Your task to perform on an android device: set the timer Image 0: 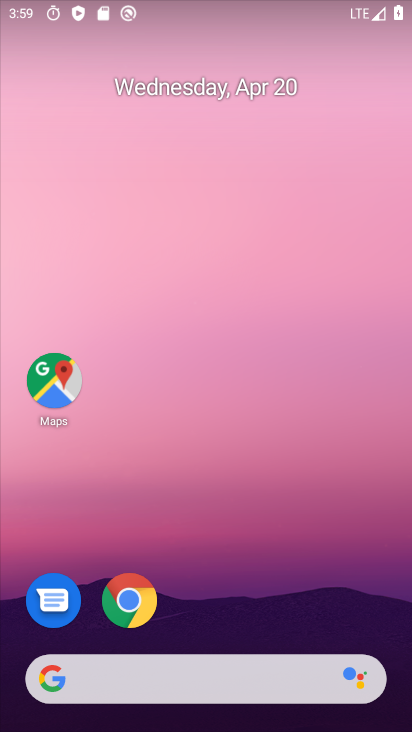
Step 0: drag from (251, 576) to (252, 33)
Your task to perform on an android device: set the timer Image 1: 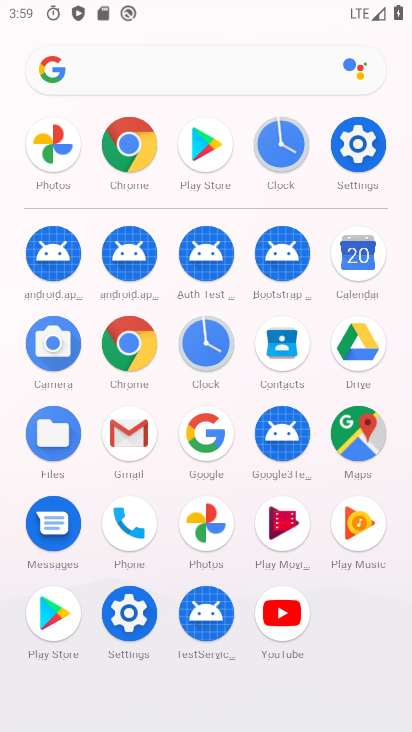
Step 1: click (206, 340)
Your task to perform on an android device: set the timer Image 2: 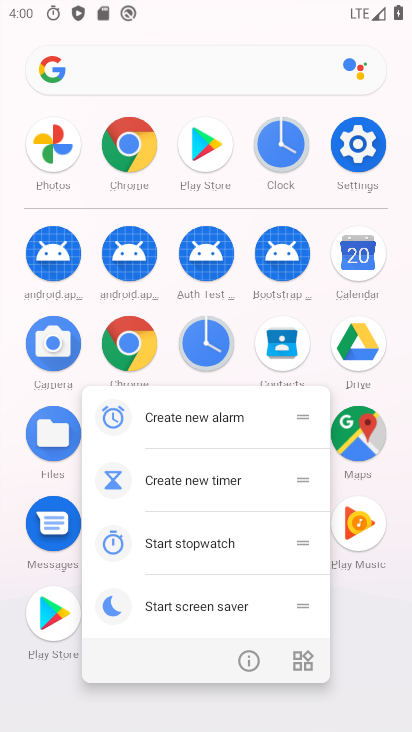
Step 2: click (205, 341)
Your task to perform on an android device: set the timer Image 3: 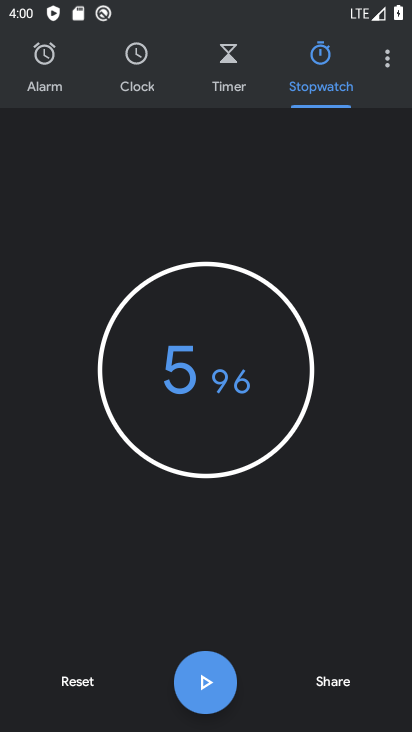
Step 3: click (226, 59)
Your task to perform on an android device: set the timer Image 4: 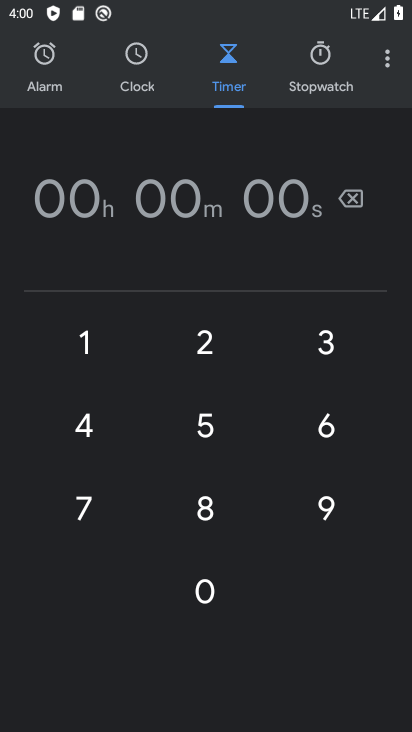
Step 4: click (214, 439)
Your task to perform on an android device: set the timer Image 5: 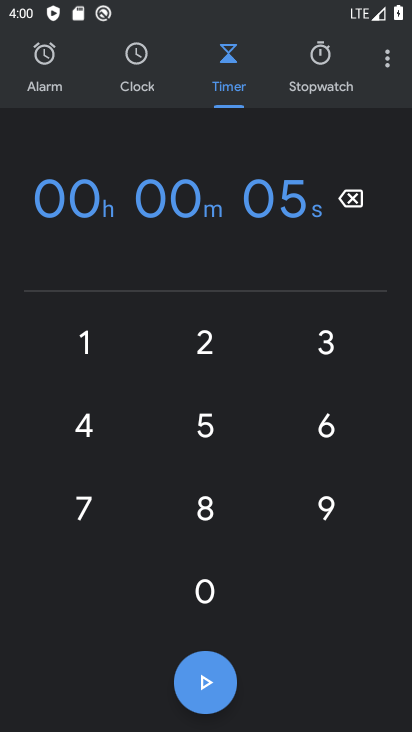
Step 5: task complete